Your task to perform on an android device: set the timer Image 0: 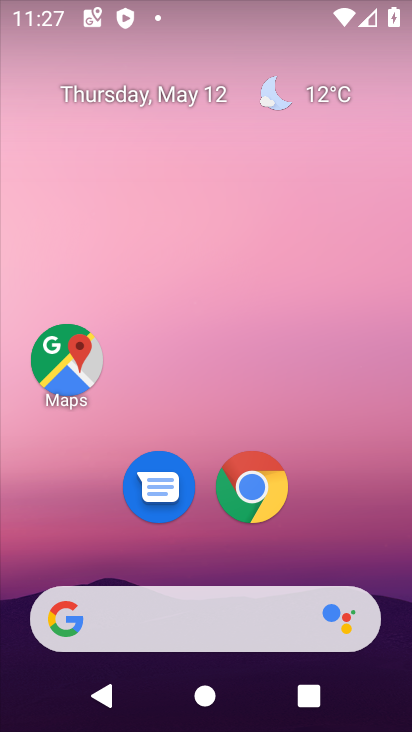
Step 0: drag from (342, 556) to (341, 28)
Your task to perform on an android device: set the timer Image 1: 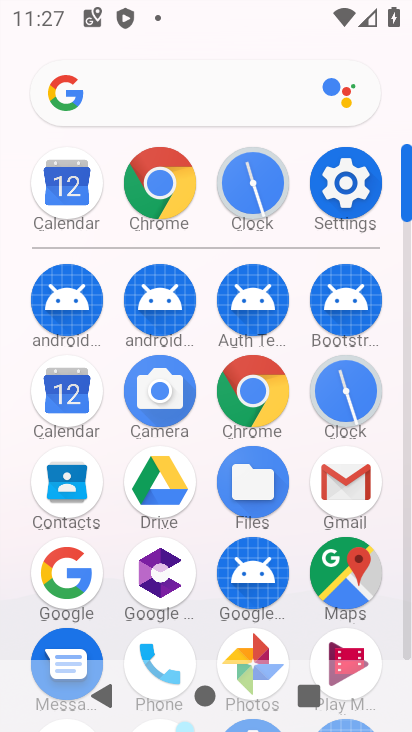
Step 1: click (260, 188)
Your task to perform on an android device: set the timer Image 2: 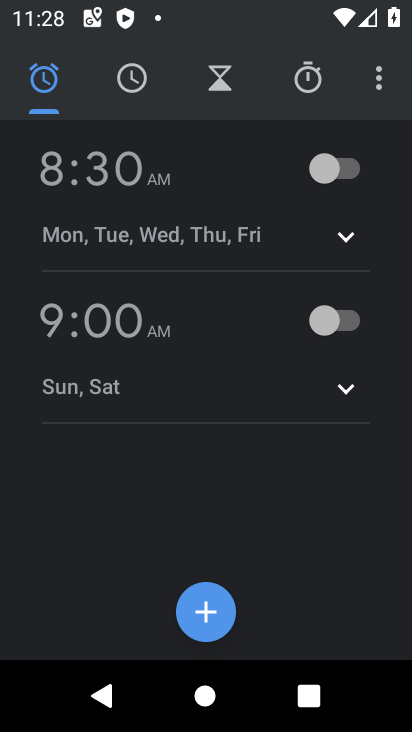
Step 2: click (220, 92)
Your task to perform on an android device: set the timer Image 3: 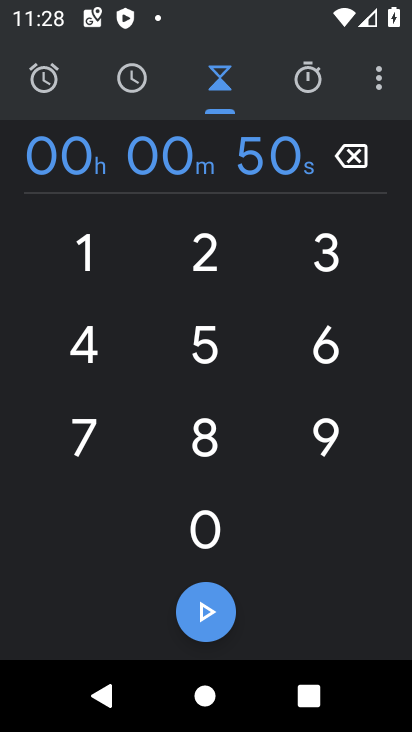
Step 3: click (213, 424)
Your task to perform on an android device: set the timer Image 4: 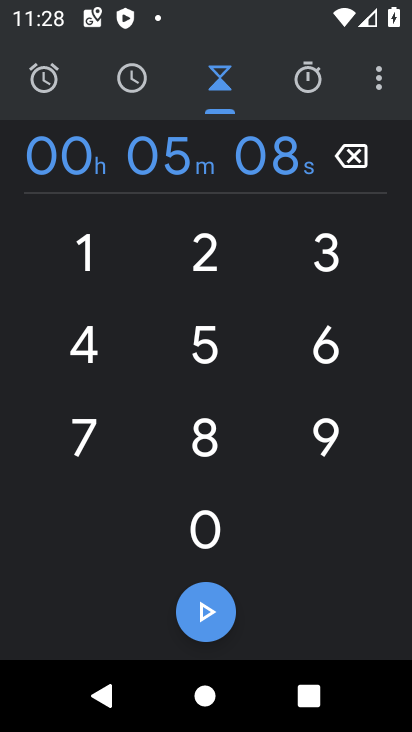
Step 4: click (203, 601)
Your task to perform on an android device: set the timer Image 5: 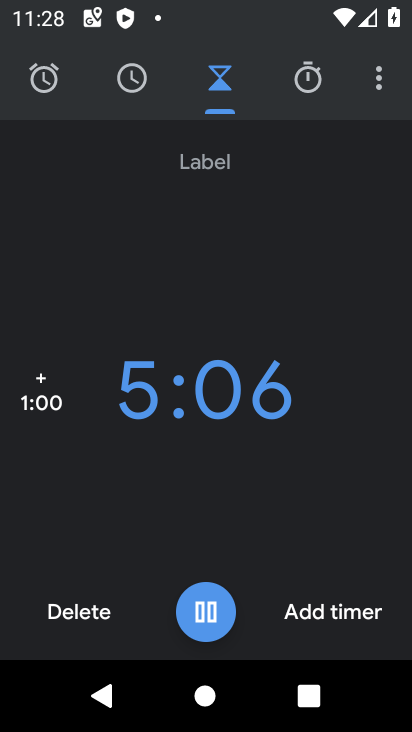
Step 5: task complete